Your task to perform on an android device: turn on wifi Image 0: 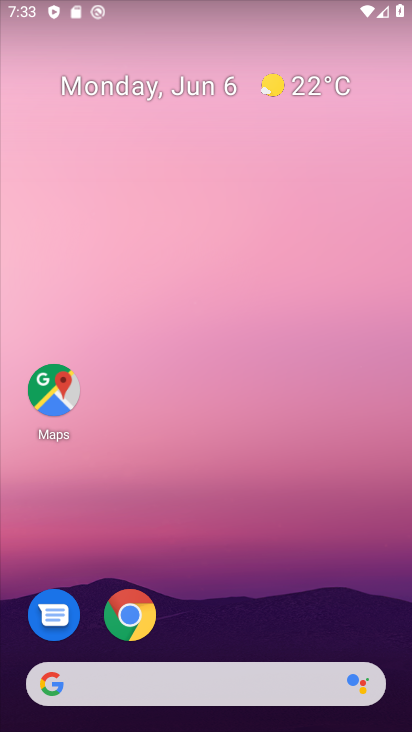
Step 0: drag from (393, 708) to (373, 131)
Your task to perform on an android device: turn on wifi Image 1: 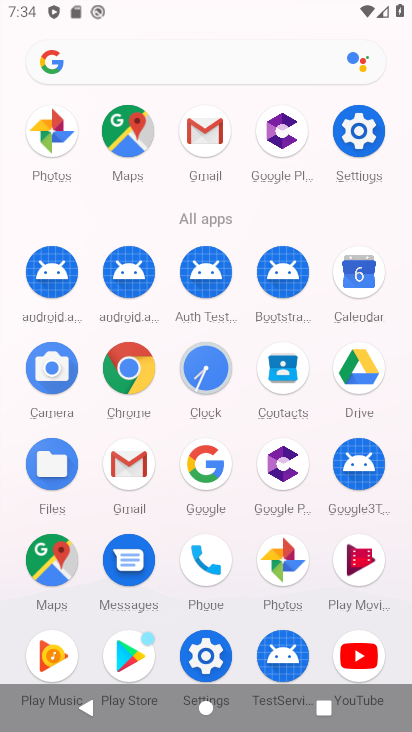
Step 1: click (338, 128)
Your task to perform on an android device: turn on wifi Image 2: 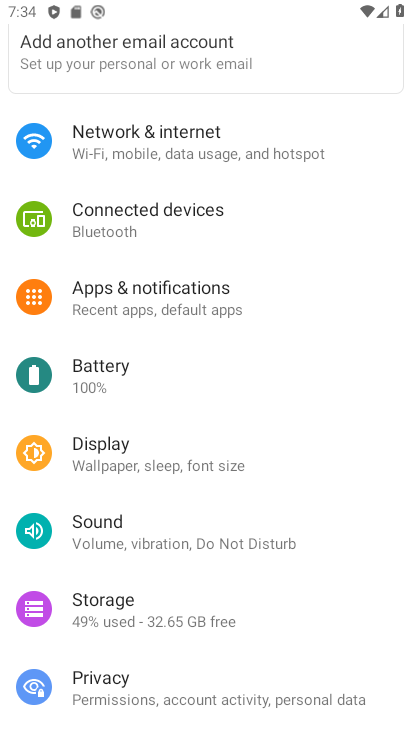
Step 2: drag from (304, 110) to (305, 507)
Your task to perform on an android device: turn on wifi Image 3: 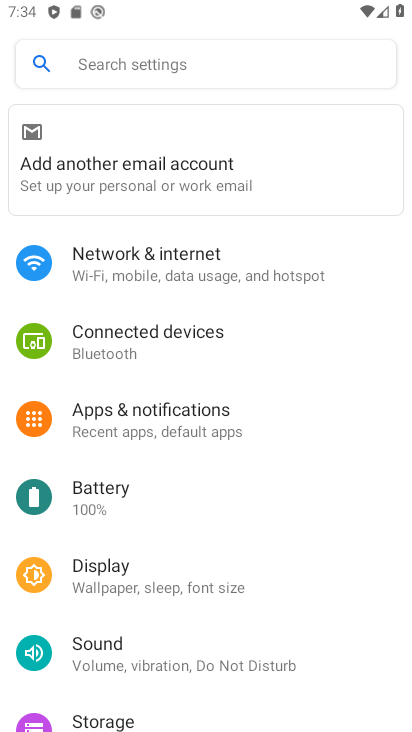
Step 3: click (174, 265)
Your task to perform on an android device: turn on wifi Image 4: 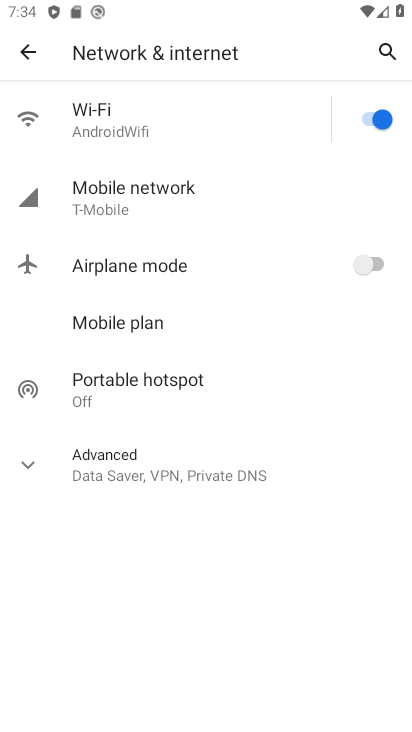
Step 4: task complete